Your task to perform on an android device: Search for the best coffee tables on Crate & Barrel Image 0: 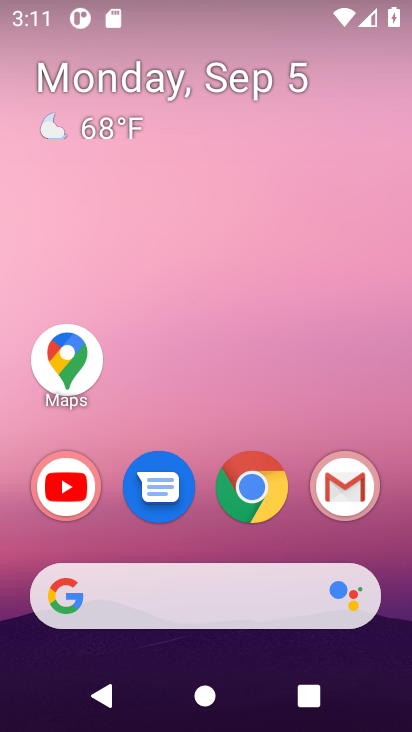
Step 0: click (255, 499)
Your task to perform on an android device: Search for the best coffee tables on Crate & Barrel Image 1: 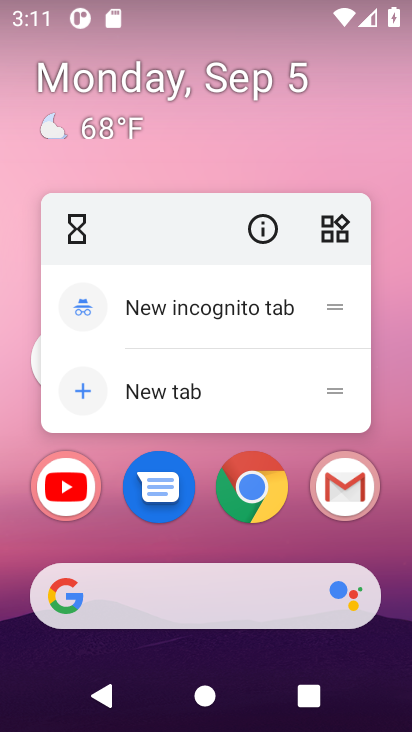
Step 1: click (261, 478)
Your task to perform on an android device: Search for the best coffee tables on Crate & Barrel Image 2: 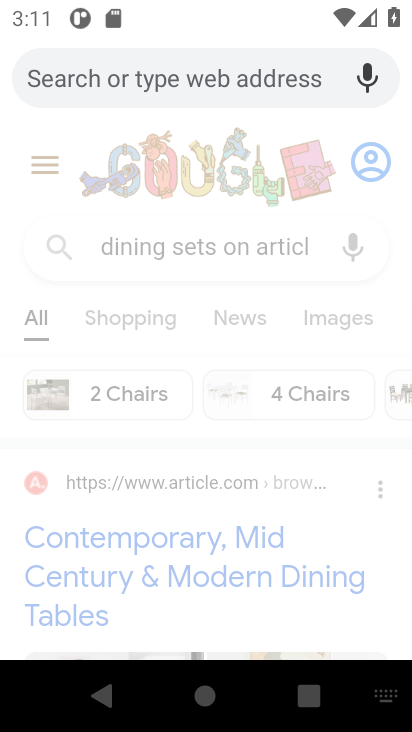
Step 2: type "the best coffee tables on Crate & Barrel"
Your task to perform on an android device: Search for the best coffee tables on Crate & Barrel Image 3: 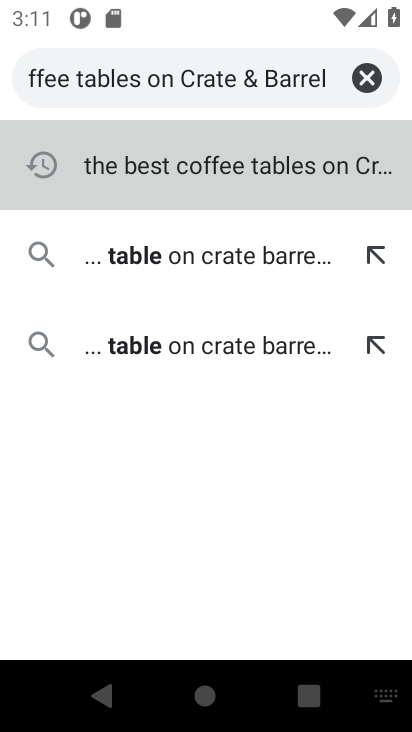
Step 3: click (204, 182)
Your task to perform on an android device: Search for the best coffee tables on Crate & Barrel Image 4: 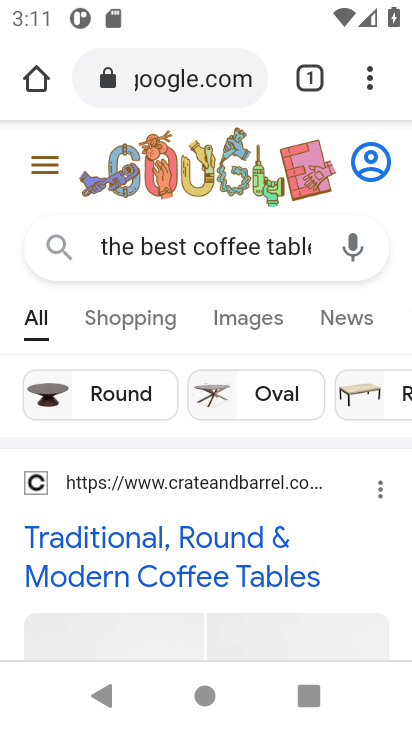
Step 4: drag from (343, 574) to (364, 288)
Your task to perform on an android device: Search for the best coffee tables on Crate & Barrel Image 5: 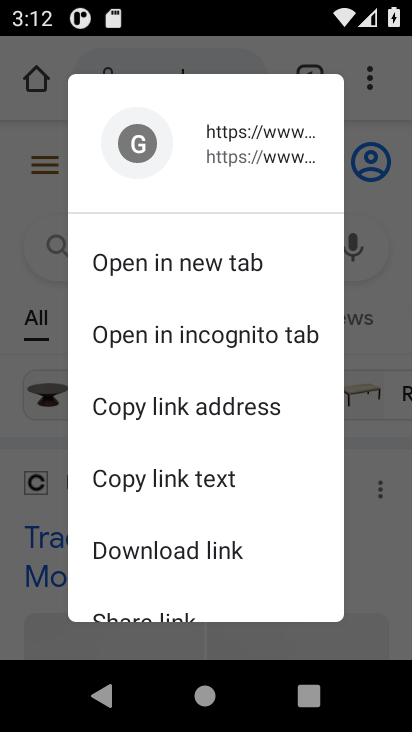
Step 5: click (379, 546)
Your task to perform on an android device: Search for the best coffee tables on Crate & Barrel Image 6: 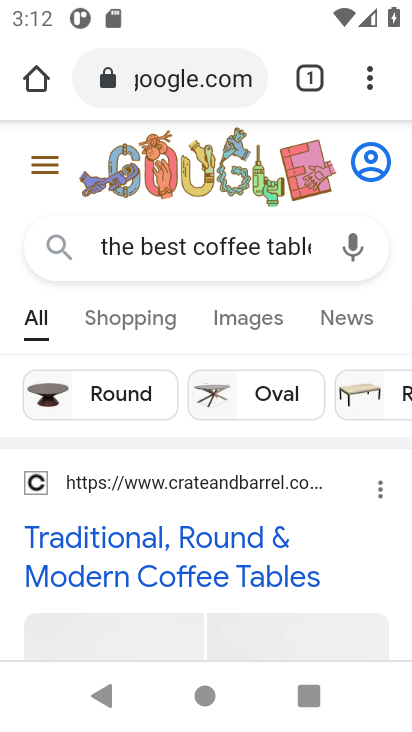
Step 6: task complete